Your task to perform on an android device: Add jbl charge 4 to the cart on newegg Image 0: 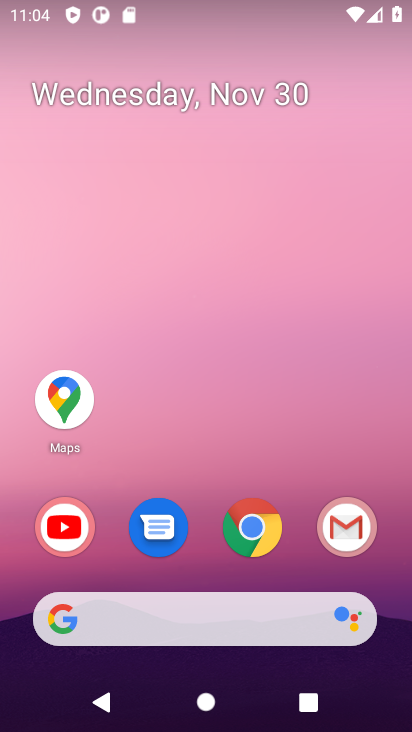
Step 0: click (255, 535)
Your task to perform on an android device: Add jbl charge 4 to the cart on newegg Image 1: 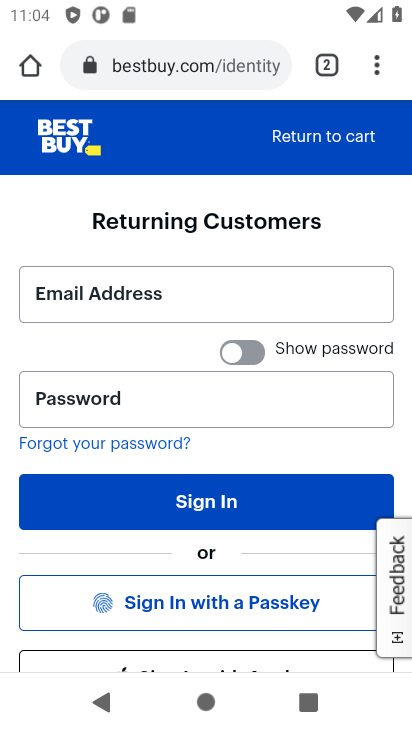
Step 1: click (172, 73)
Your task to perform on an android device: Add jbl charge 4 to the cart on newegg Image 2: 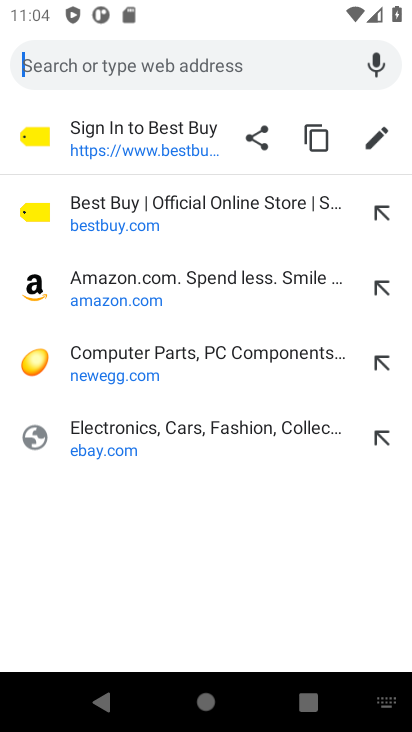
Step 2: click (92, 376)
Your task to perform on an android device: Add jbl charge 4 to the cart on newegg Image 3: 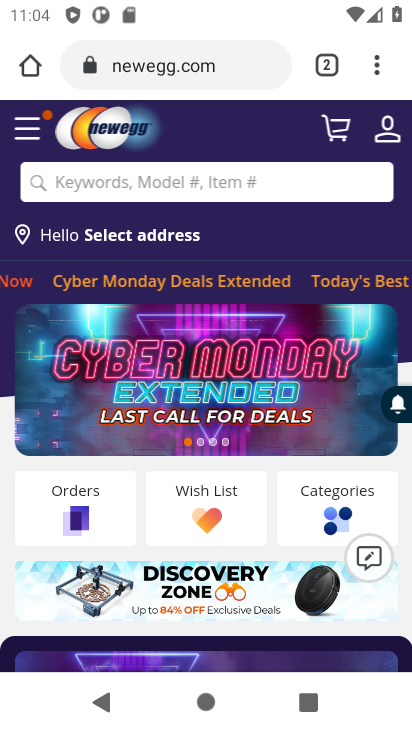
Step 3: click (193, 182)
Your task to perform on an android device: Add jbl charge 4 to the cart on newegg Image 4: 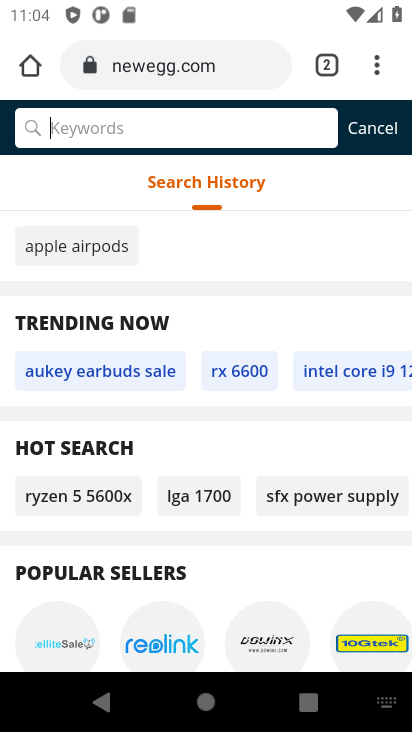
Step 4: type "jbl charge 4"
Your task to perform on an android device: Add jbl charge 4 to the cart on newegg Image 5: 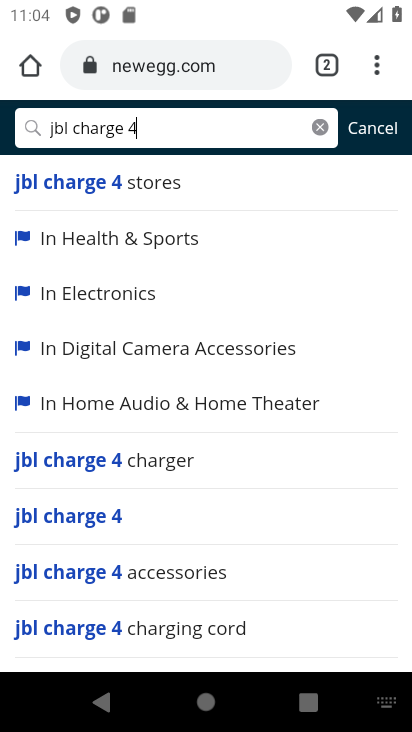
Step 5: click (79, 514)
Your task to perform on an android device: Add jbl charge 4 to the cart on newegg Image 6: 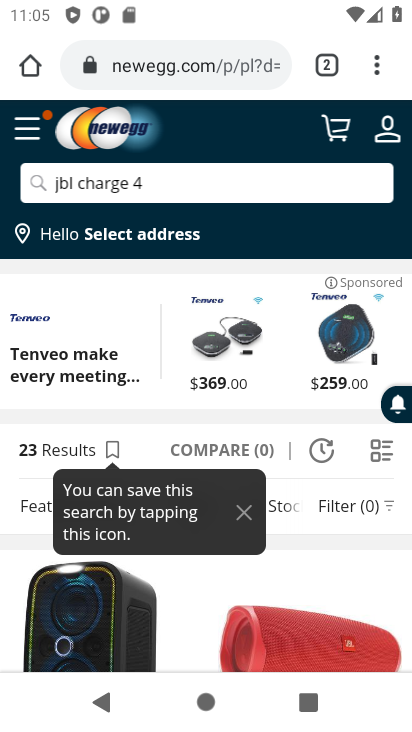
Step 6: drag from (195, 558) to (186, 279)
Your task to perform on an android device: Add jbl charge 4 to the cart on newegg Image 7: 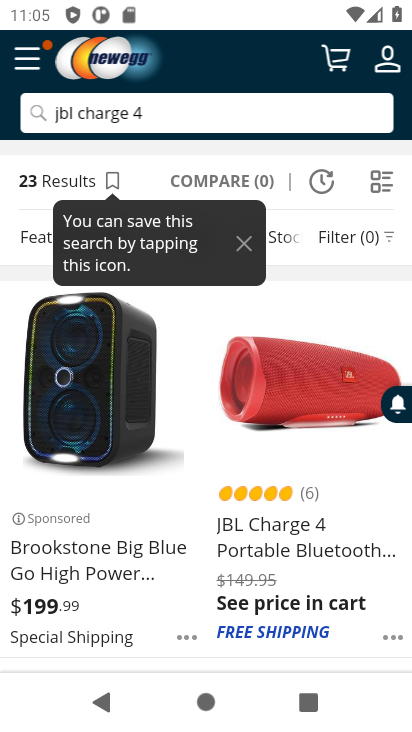
Step 7: click (303, 453)
Your task to perform on an android device: Add jbl charge 4 to the cart on newegg Image 8: 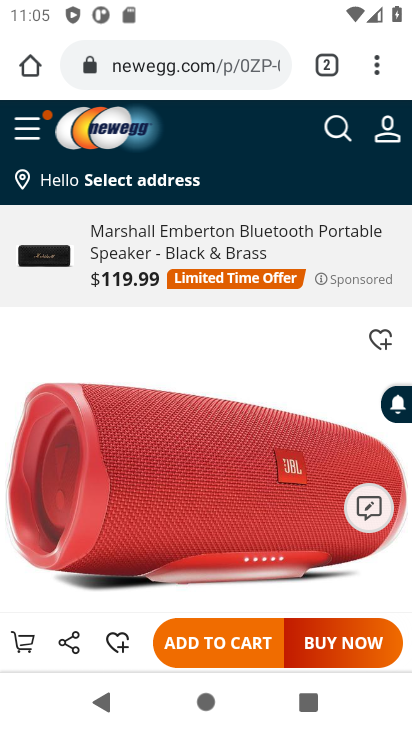
Step 8: click (213, 642)
Your task to perform on an android device: Add jbl charge 4 to the cart on newegg Image 9: 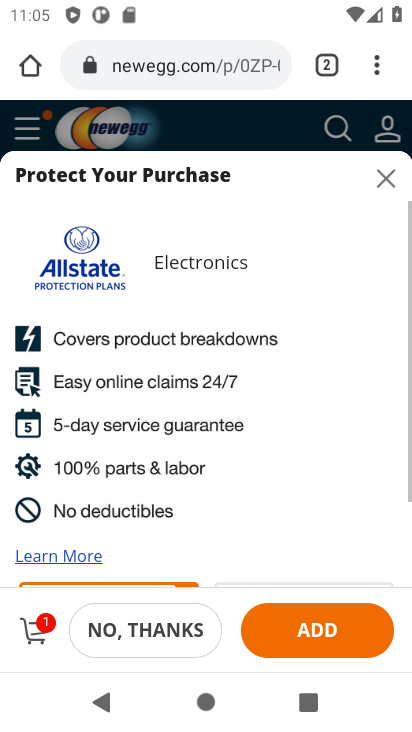
Step 9: task complete